Your task to perform on an android device: Set the phone to "Do not disturb". Image 0: 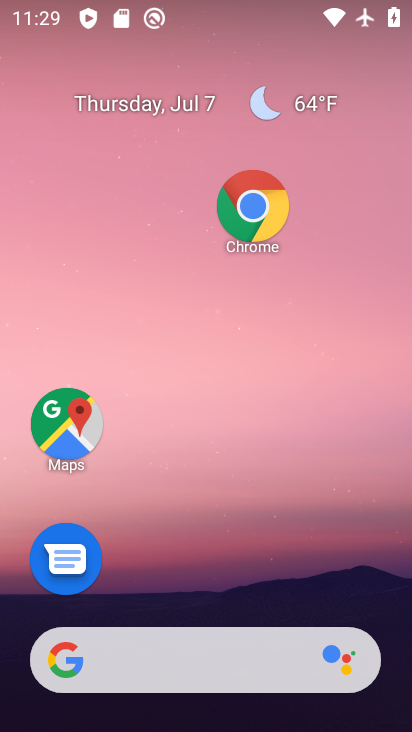
Step 0: drag from (193, 639) to (207, 254)
Your task to perform on an android device: Set the phone to "Do not disturb". Image 1: 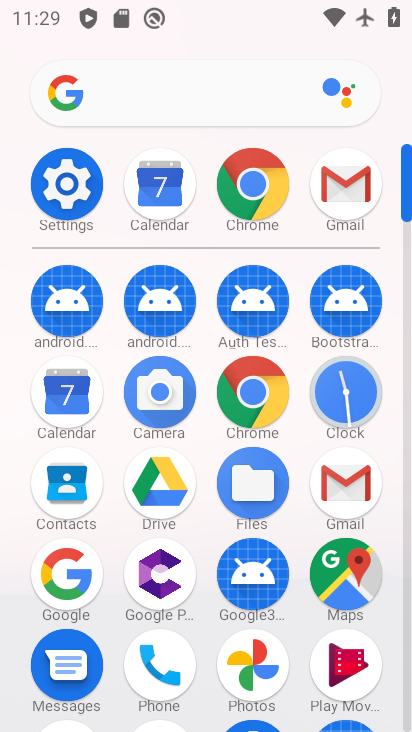
Step 1: click (73, 176)
Your task to perform on an android device: Set the phone to "Do not disturb". Image 2: 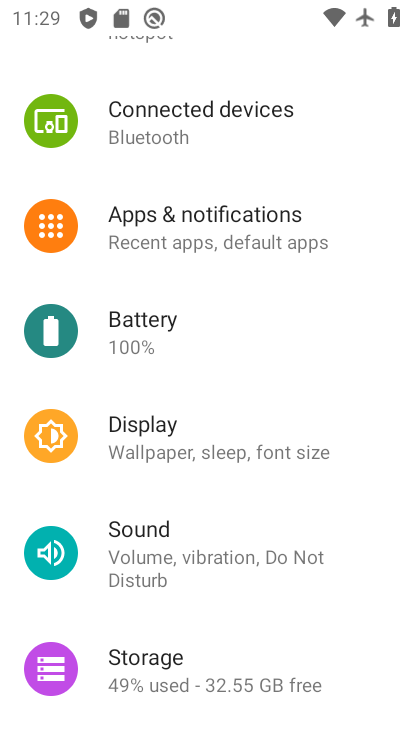
Step 2: click (188, 489)
Your task to perform on an android device: Set the phone to "Do not disturb". Image 3: 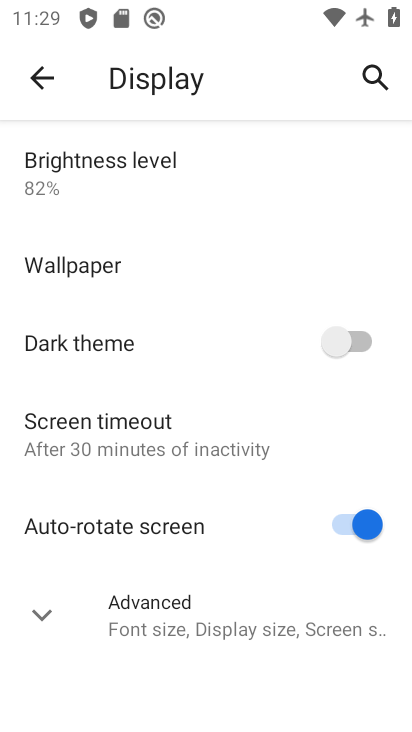
Step 3: press back button
Your task to perform on an android device: Set the phone to "Do not disturb". Image 4: 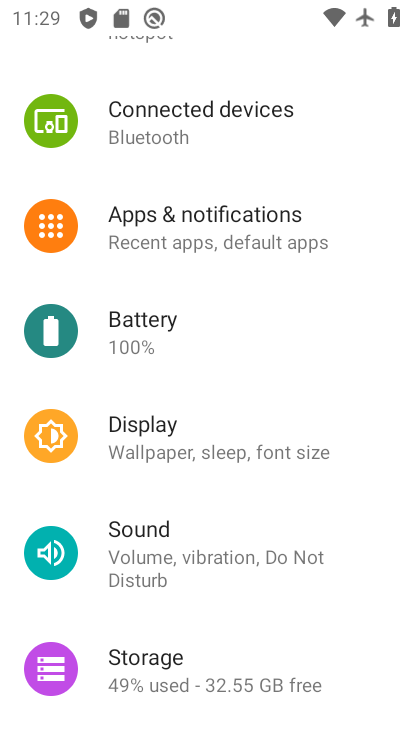
Step 4: click (162, 565)
Your task to perform on an android device: Set the phone to "Do not disturb". Image 5: 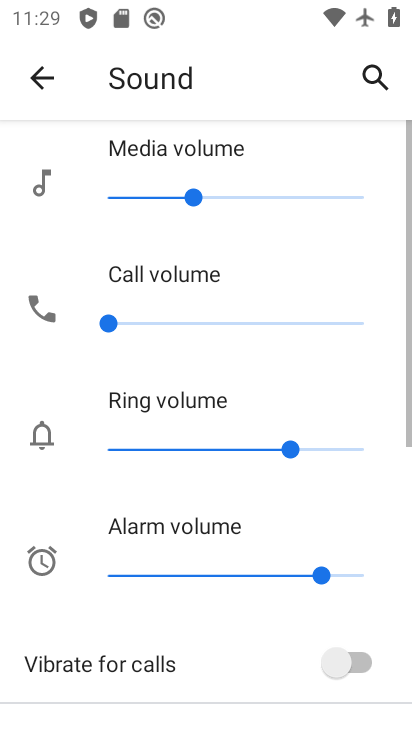
Step 5: drag from (176, 684) to (204, 211)
Your task to perform on an android device: Set the phone to "Do not disturb". Image 6: 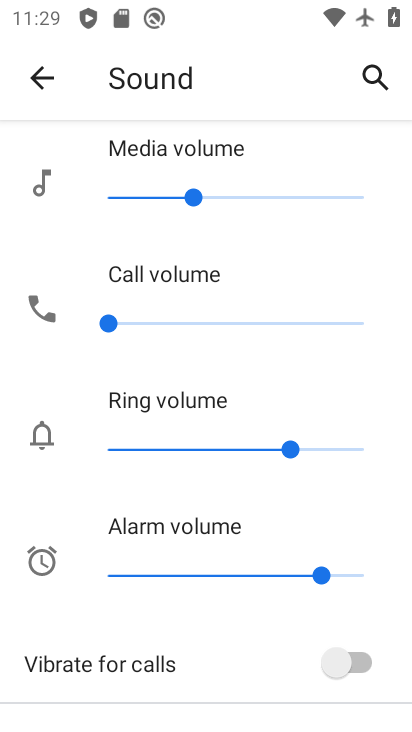
Step 6: drag from (170, 530) to (166, 30)
Your task to perform on an android device: Set the phone to "Do not disturb". Image 7: 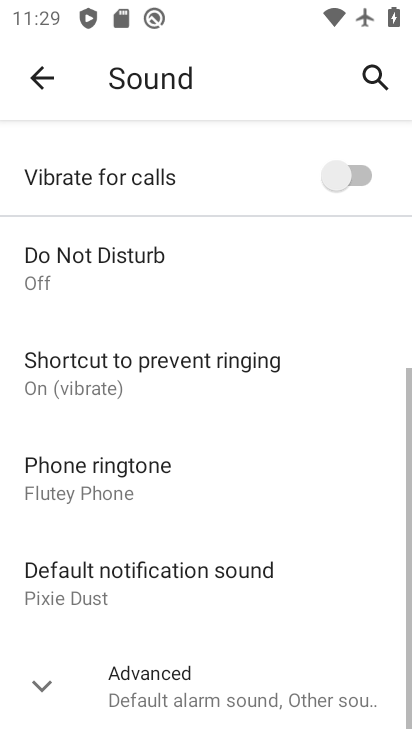
Step 7: drag from (176, 586) to (239, 79)
Your task to perform on an android device: Set the phone to "Do not disturb". Image 8: 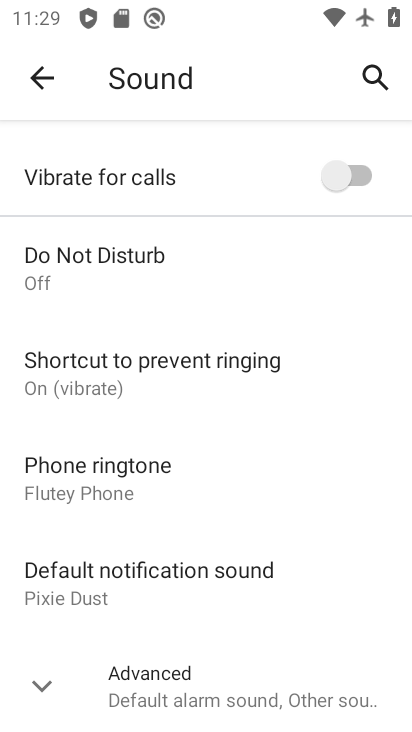
Step 8: click (193, 694)
Your task to perform on an android device: Set the phone to "Do not disturb". Image 9: 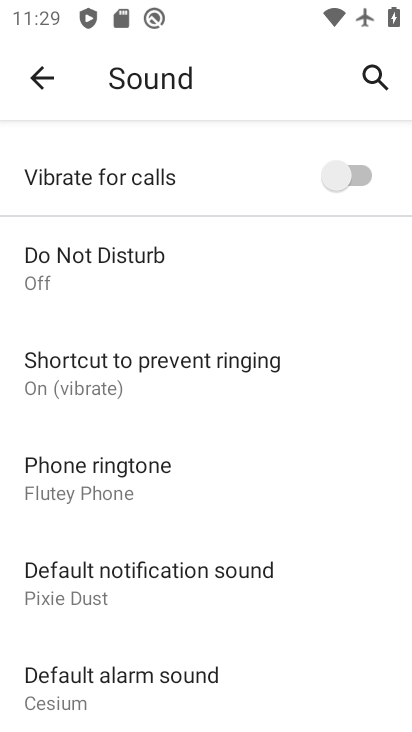
Step 9: click (129, 252)
Your task to perform on an android device: Set the phone to "Do not disturb". Image 10: 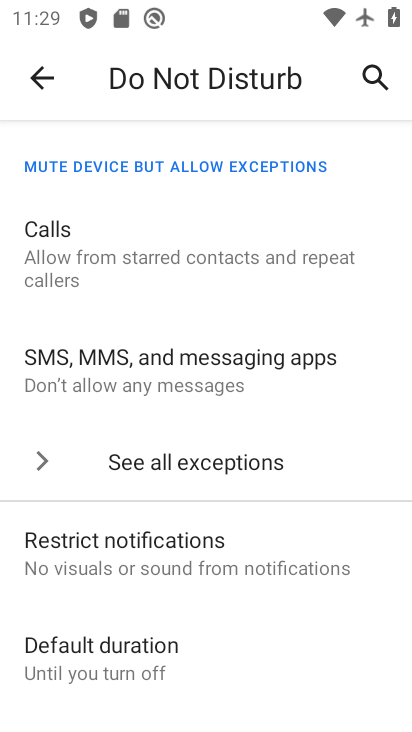
Step 10: drag from (131, 655) to (184, 199)
Your task to perform on an android device: Set the phone to "Do not disturb". Image 11: 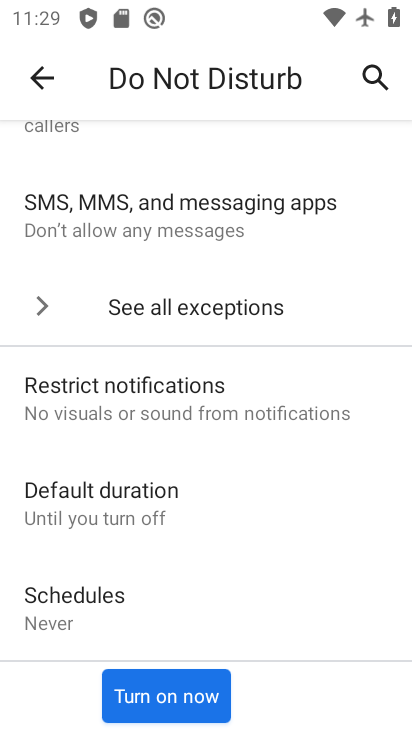
Step 11: click (149, 685)
Your task to perform on an android device: Set the phone to "Do not disturb". Image 12: 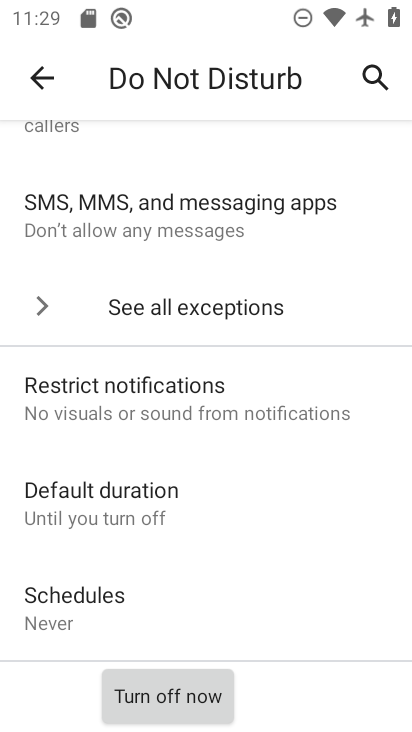
Step 12: task complete